Your task to perform on an android device: Is it going to rain this weekend? Image 0: 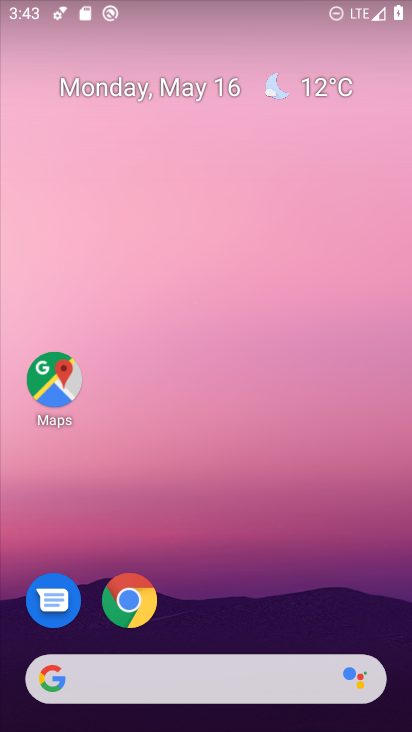
Step 0: click (336, 81)
Your task to perform on an android device: Is it going to rain this weekend? Image 1: 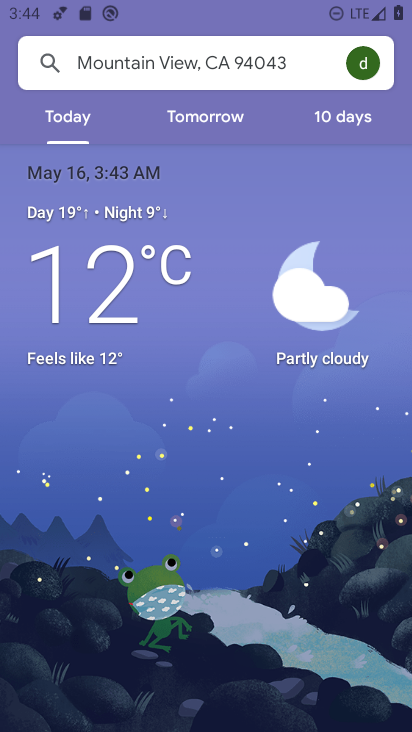
Step 1: click (331, 119)
Your task to perform on an android device: Is it going to rain this weekend? Image 2: 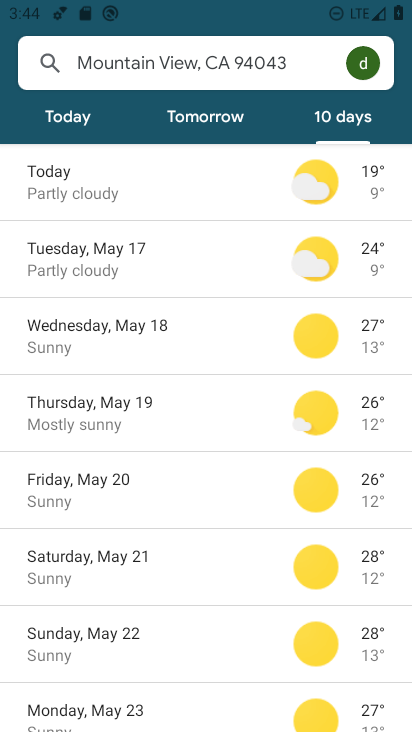
Step 2: task complete